Your task to perform on an android device: snooze an email in the gmail app Image 0: 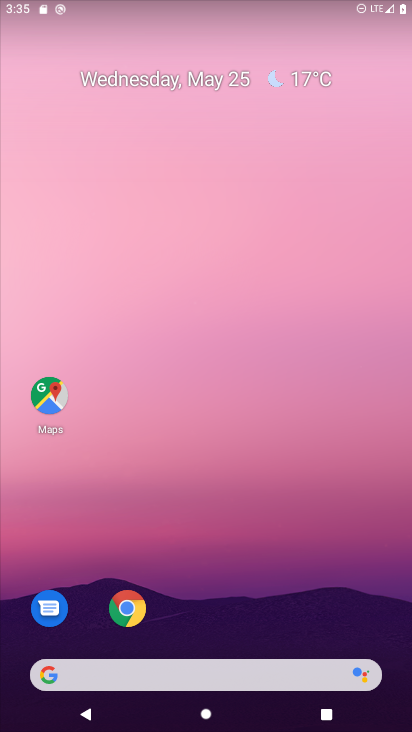
Step 0: drag from (368, 613) to (312, 108)
Your task to perform on an android device: snooze an email in the gmail app Image 1: 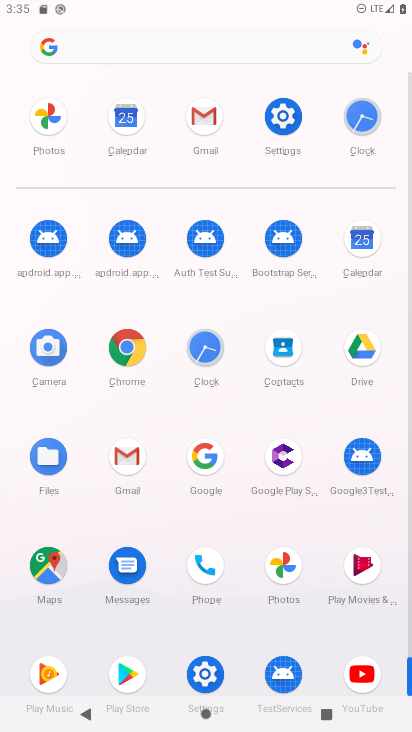
Step 1: click (126, 452)
Your task to perform on an android device: snooze an email in the gmail app Image 2: 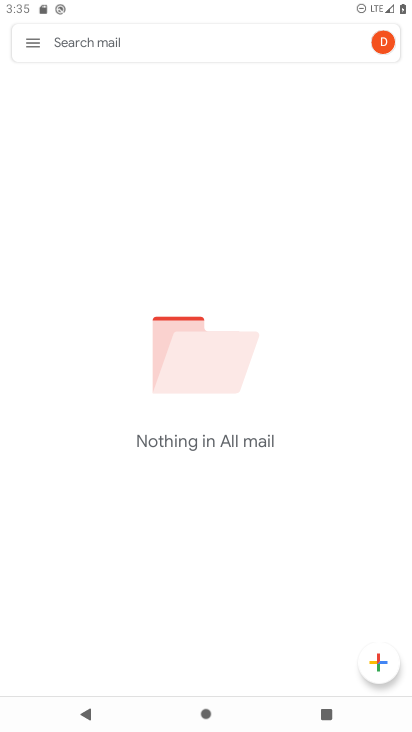
Step 2: click (30, 43)
Your task to perform on an android device: snooze an email in the gmail app Image 3: 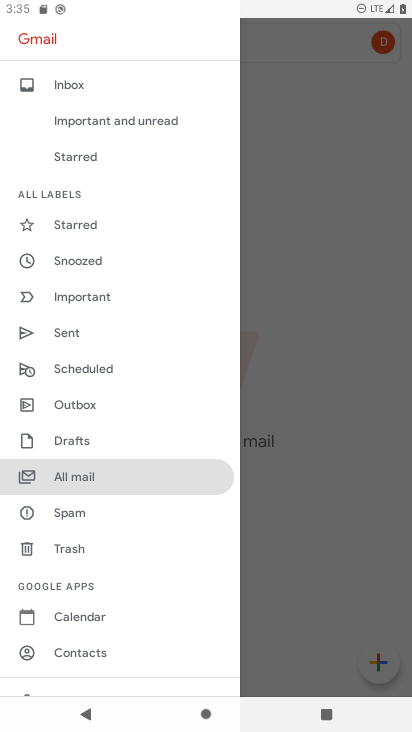
Step 3: click (80, 267)
Your task to perform on an android device: snooze an email in the gmail app Image 4: 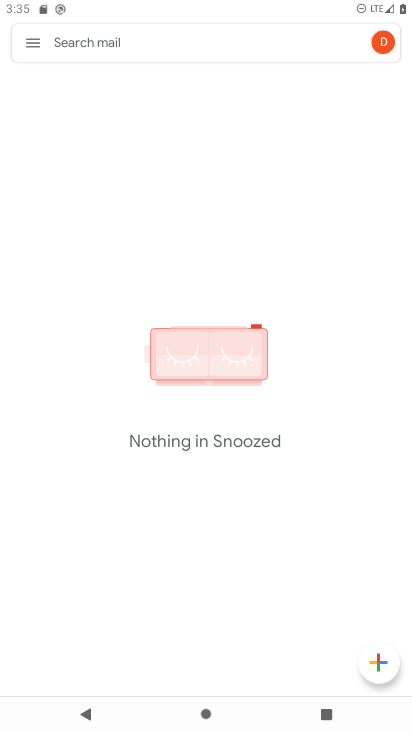
Step 4: task complete